Your task to perform on an android device: Show the shopping cart on walmart. Add "razer huntsman" to the cart on walmart, then select checkout. Image 0: 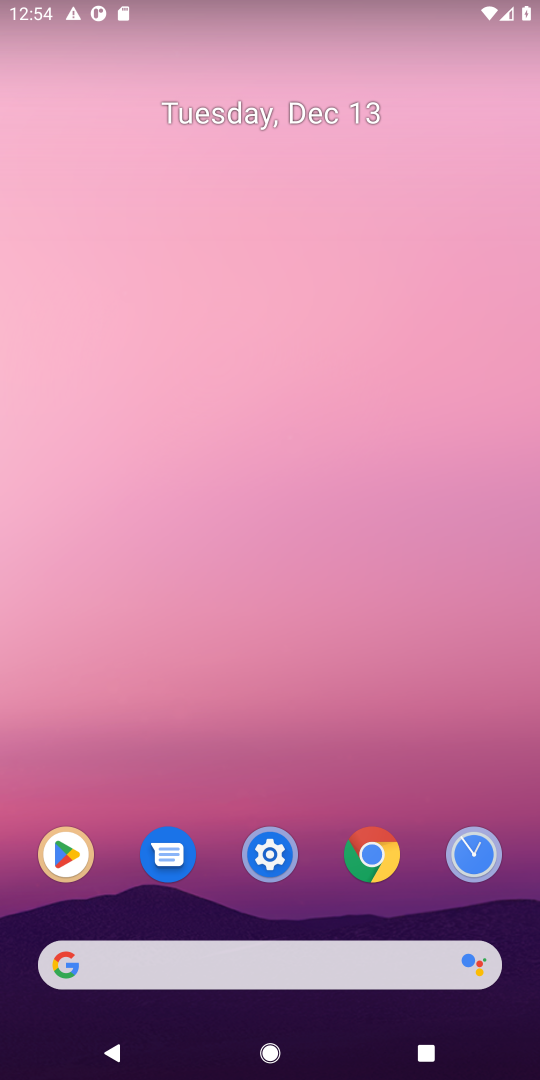
Step 0: click (328, 969)
Your task to perform on an android device: Show the shopping cart on walmart. Add "razer huntsman" to the cart on walmart, then select checkout. Image 1: 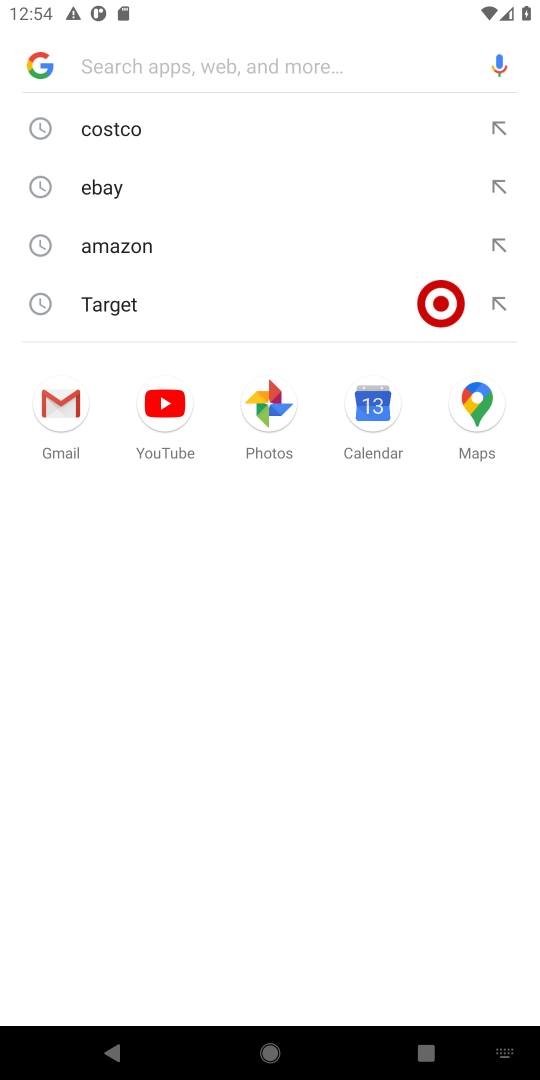
Step 1: type "walmart"
Your task to perform on an android device: Show the shopping cart on walmart. Add "razer huntsman" to the cart on walmart, then select checkout. Image 2: 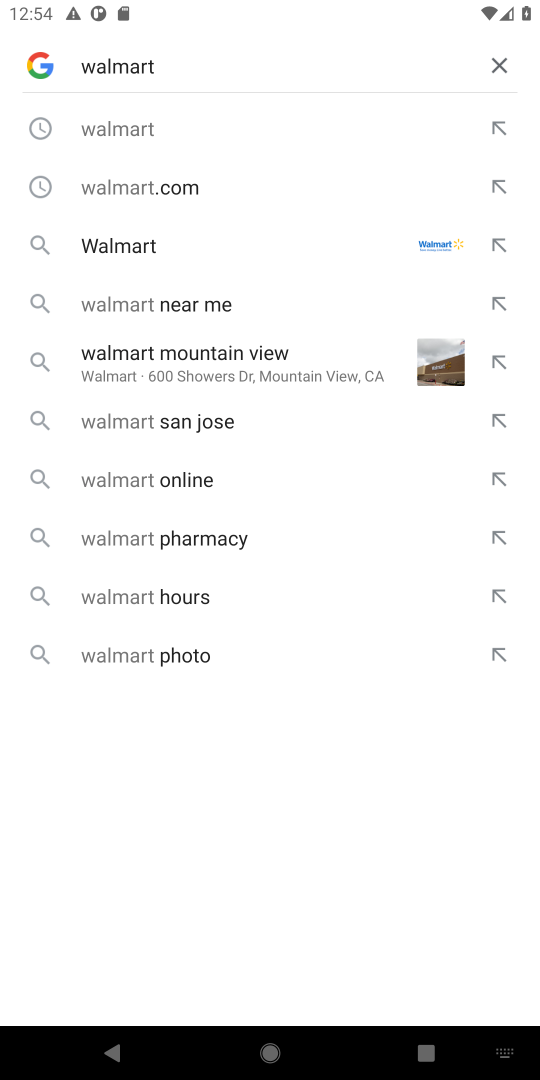
Step 2: click (135, 105)
Your task to perform on an android device: Show the shopping cart on walmart. Add "razer huntsman" to the cart on walmart, then select checkout. Image 3: 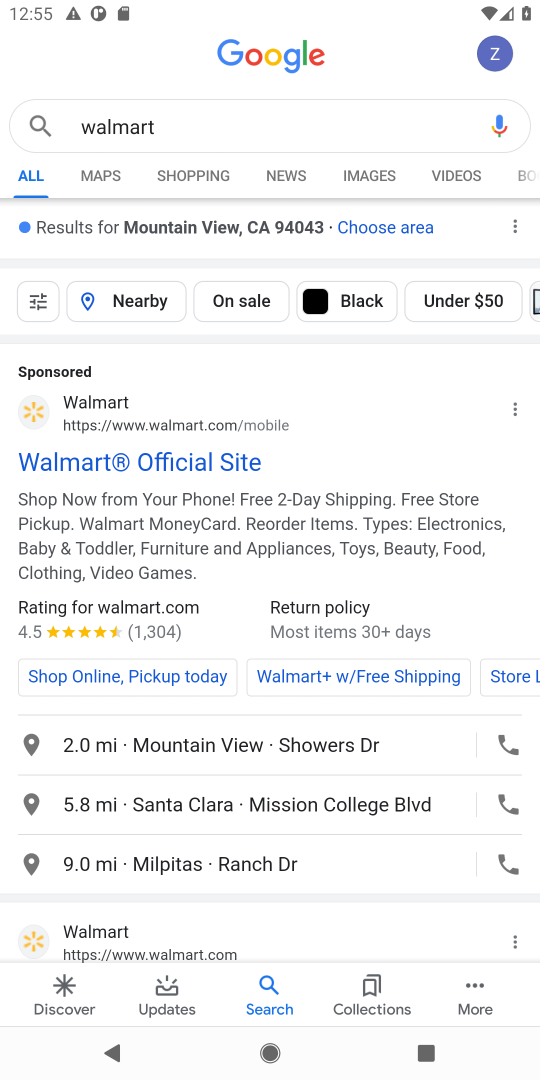
Step 3: click (97, 443)
Your task to perform on an android device: Show the shopping cart on walmart. Add "razer huntsman" to the cart on walmart, then select checkout. Image 4: 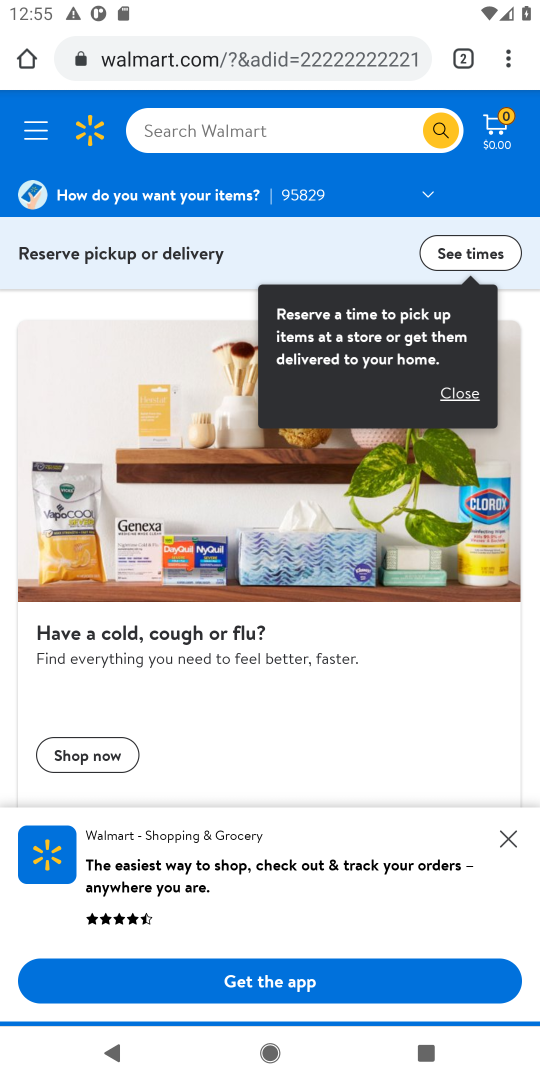
Step 4: click (510, 859)
Your task to perform on an android device: Show the shopping cart on walmart. Add "razer huntsman" to the cart on walmart, then select checkout. Image 5: 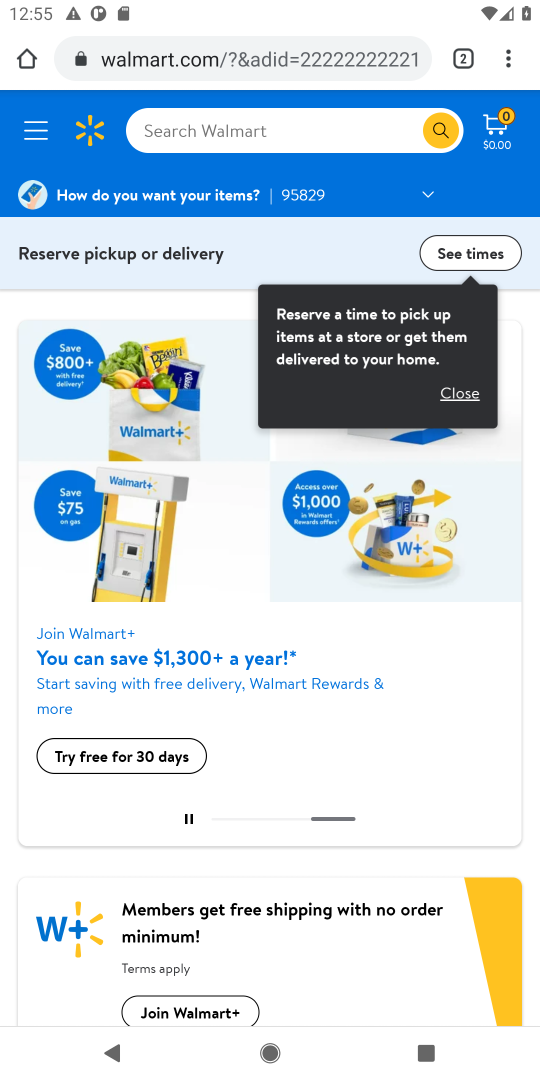
Step 5: click (438, 397)
Your task to perform on an android device: Show the shopping cart on walmart. Add "razer huntsman" to the cart on walmart, then select checkout. Image 6: 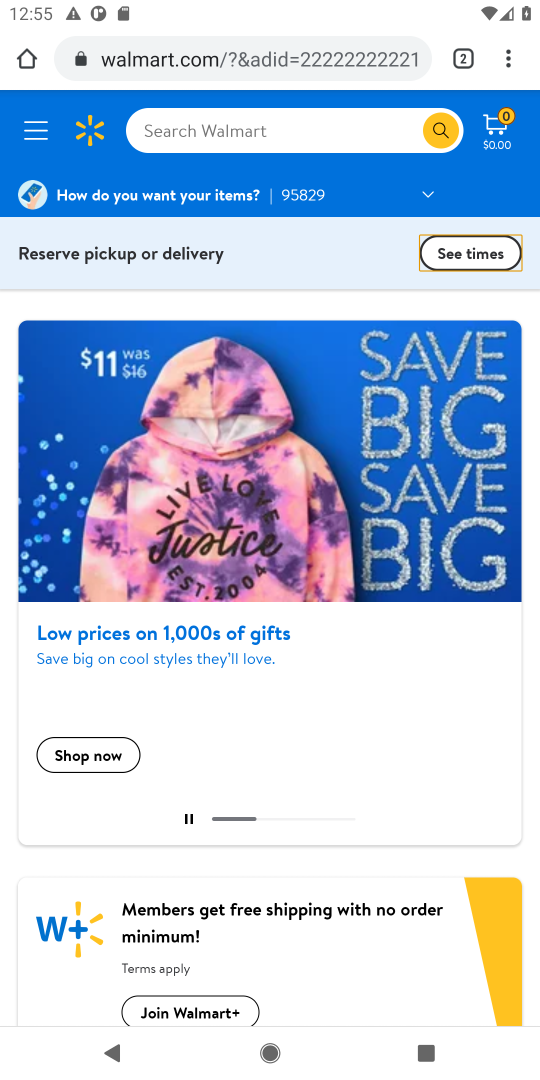
Step 6: click (280, 124)
Your task to perform on an android device: Show the shopping cart on walmart. Add "razer huntsman" to the cart on walmart, then select checkout. Image 7: 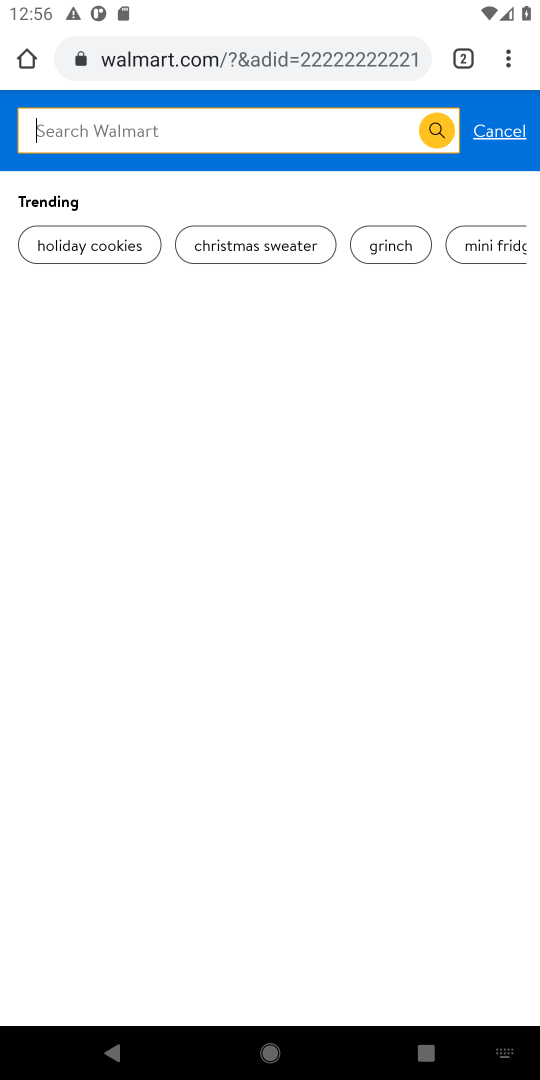
Step 7: type "razer huntsman"
Your task to perform on an android device: Show the shopping cart on walmart. Add "razer huntsman" to the cart on walmart, then select checkout. Image 8: 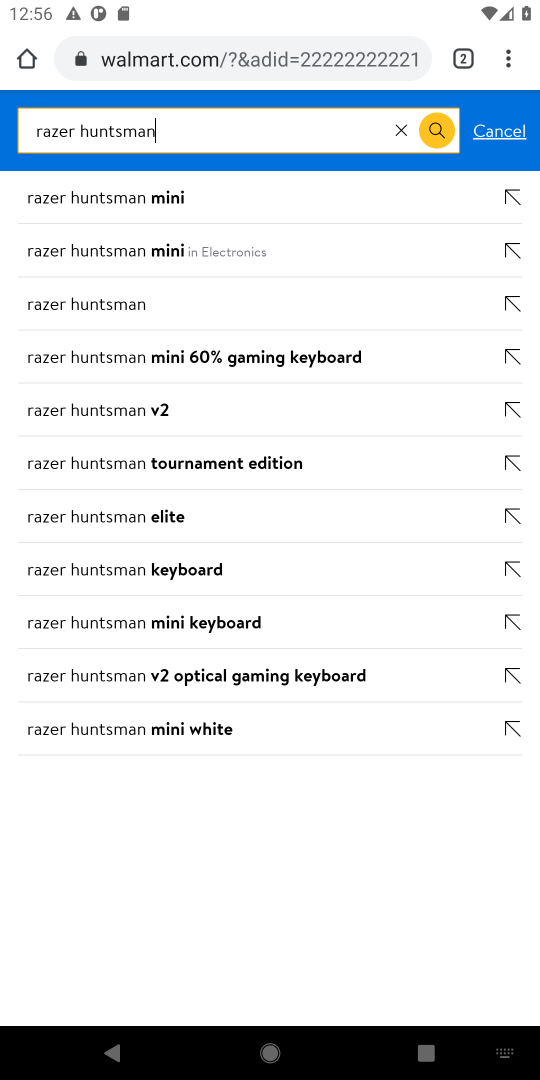
Step 8: click (446, 133)
Your task to perform on an android device: Show the shopping cart on walmart. Add "razer huntsman" to the cart on walmart, then select checkout. Image 9: 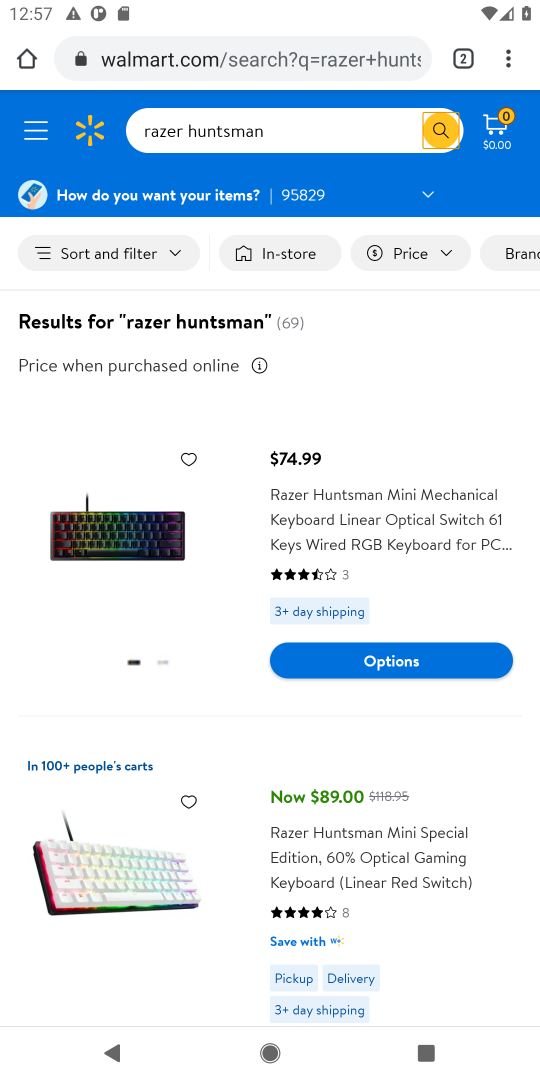
Step 9: click (494, 662)
Your task to perform on an android device: Show the shopping cart on walmart. Add "razer huntsman" to the cart on walmart, then select checkout. Image 10: 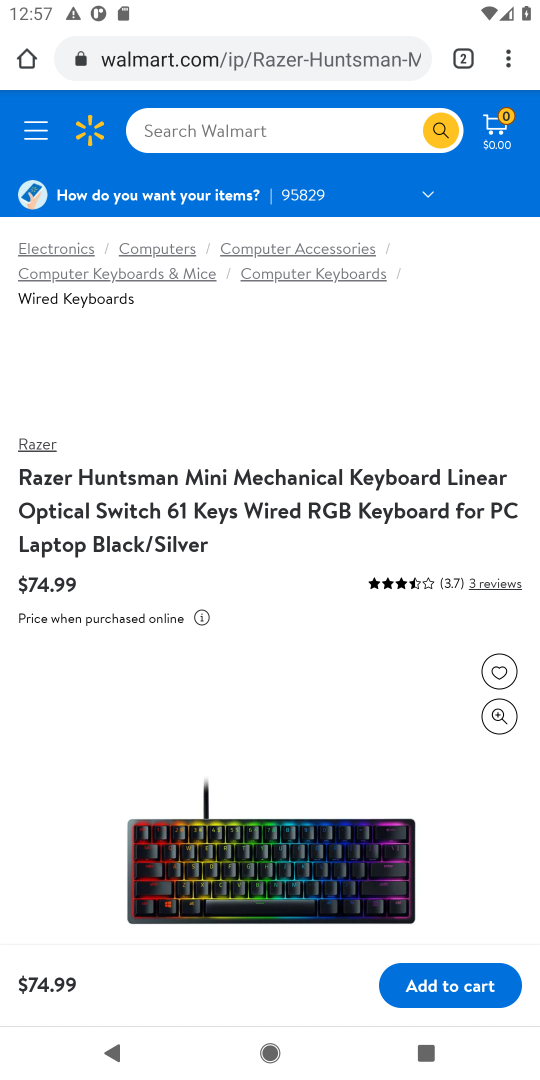
Step 10: click (457, 993)
Your task to perform on an android device: Show the shopping cart on walmart. Add "razer huntsman" to the cart on walmart, then select checkout. Image 11: 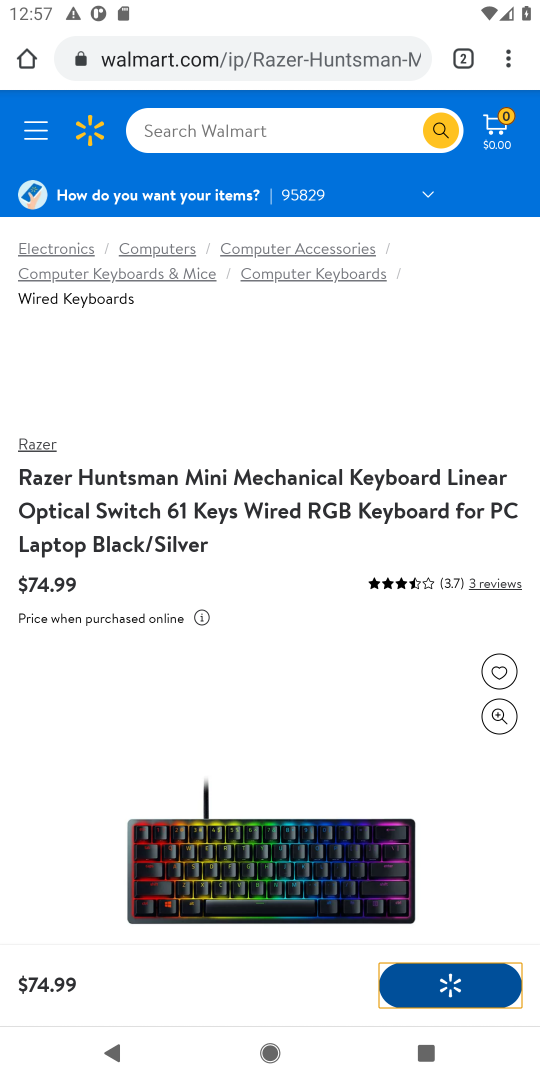
Step 11: task complete